Your task to perform on an android device: turn on priority inbox in the gmail app Image 0: 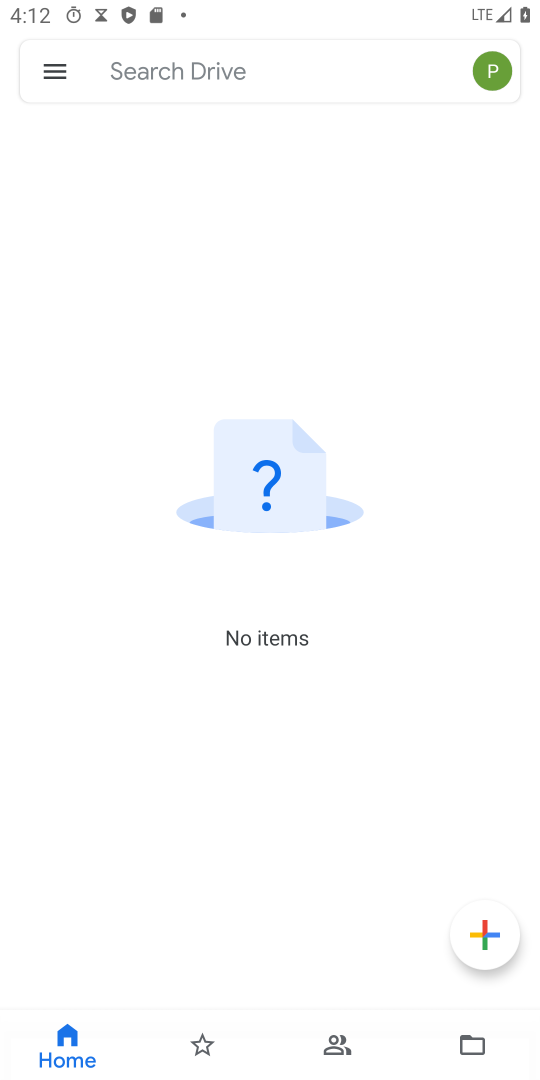
Step 0: press home button
Your task to perform on an android device: turn on priority inbox in the gmail app Image 1: 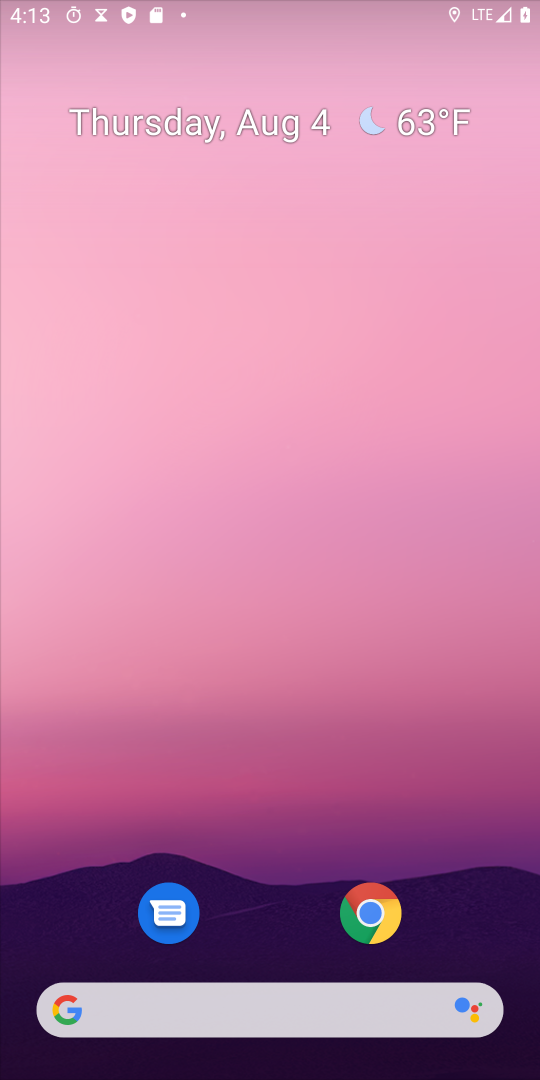
Step 1: drag from (325, 839) to (435, 45)
Your task to perform on an android device: turn on priority inbox in the gmail app Image 2: 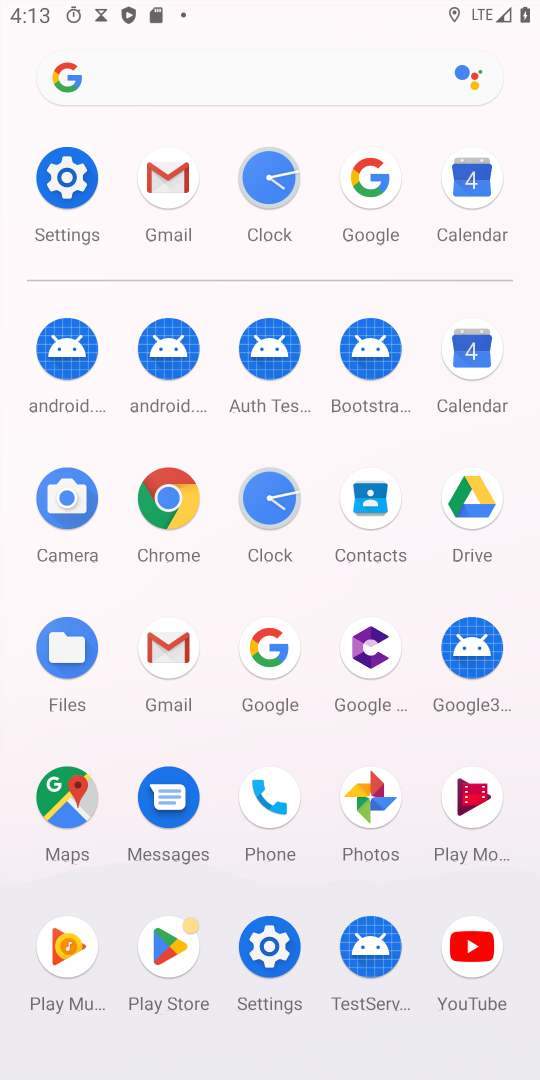
Step 2: click (163, 630)
Your task to perform on an android device: turn on priority inbox in the gmail app Image 3: 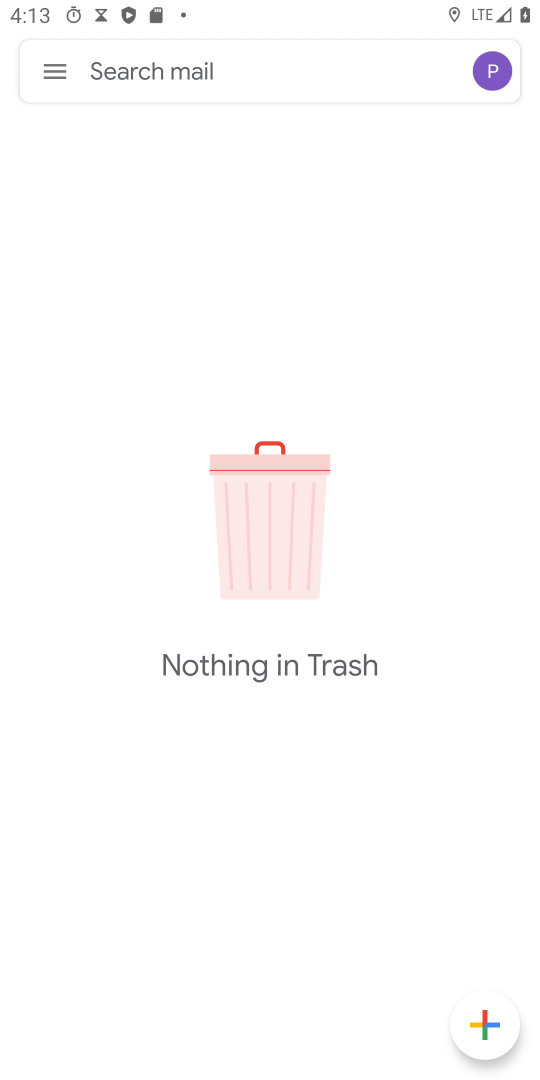
Step 3: click (49, 57)
Your task to perform on an android device: turn on priority inbox in the gmail app Image 4: 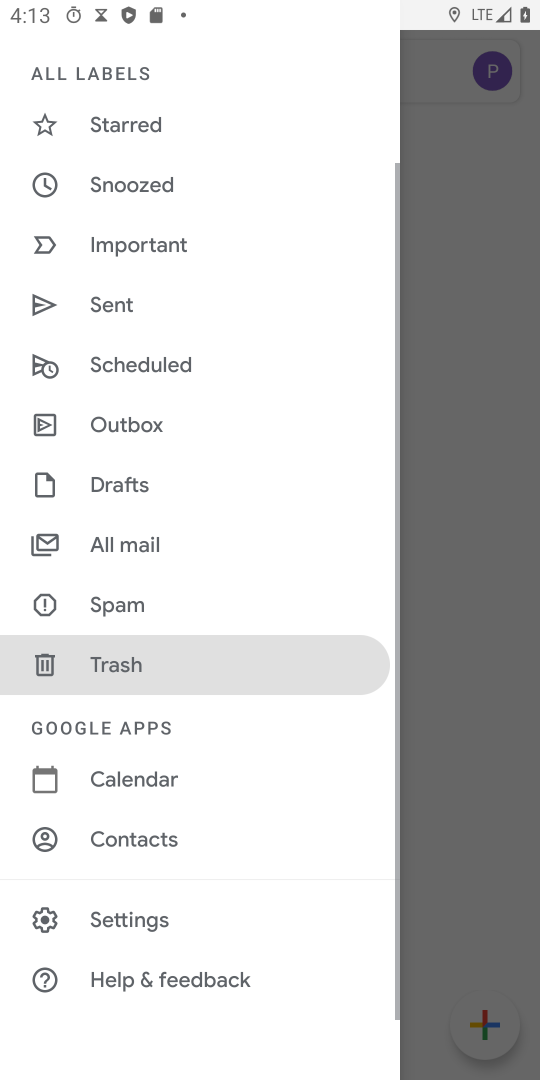
Step 4: click (150, 919)
Your task to perform on an android device: turn on priority inbox in the gmail app Image 5: 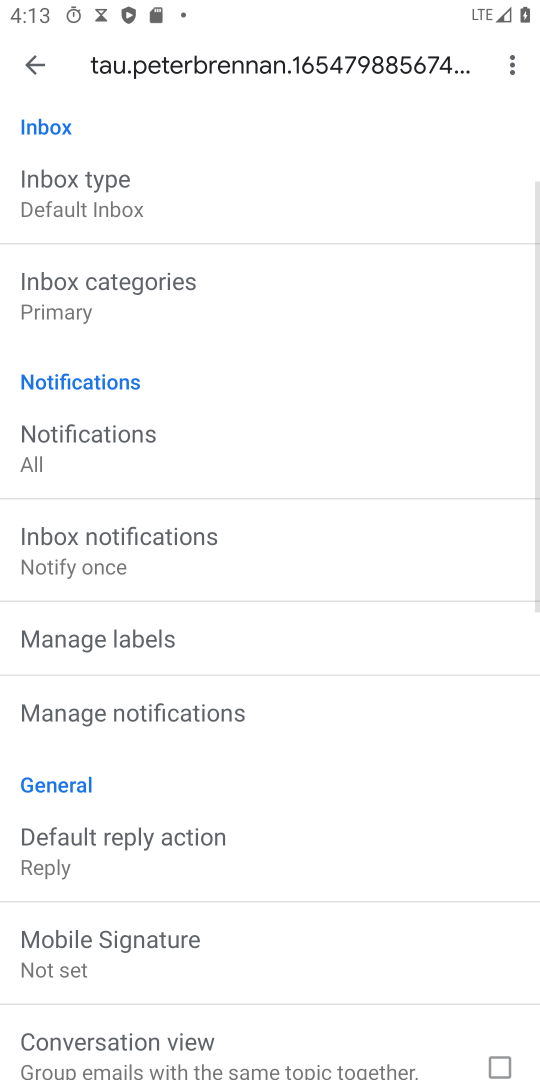
Step 5: click (118, 193)
Your task to perform on an android device: turn on priority inbox in the gmail app Image 6: 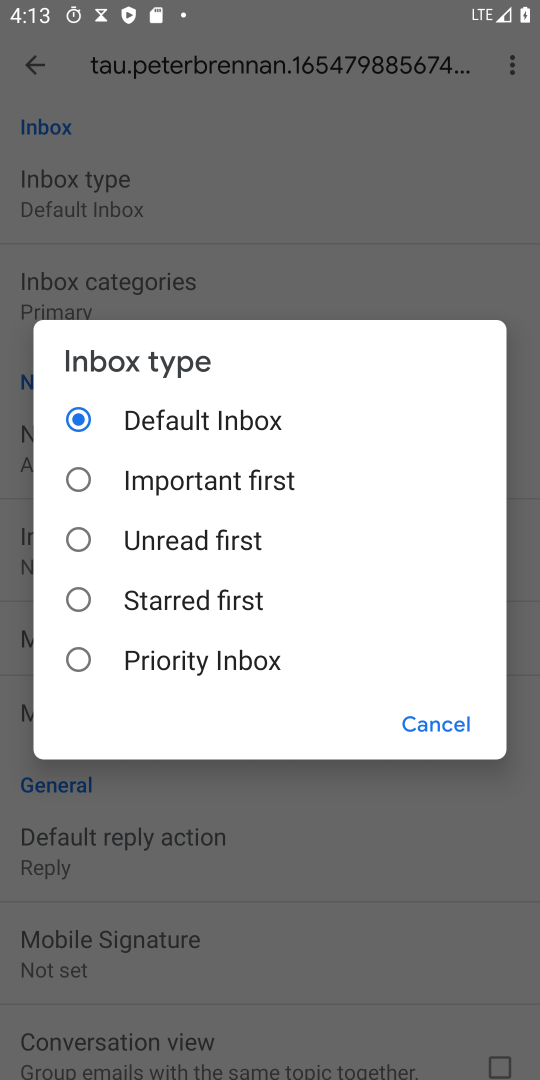
Step 6: click (70, 662)
Your task to perform on an android device: turn on priority inbox in the gmail app Image 7: 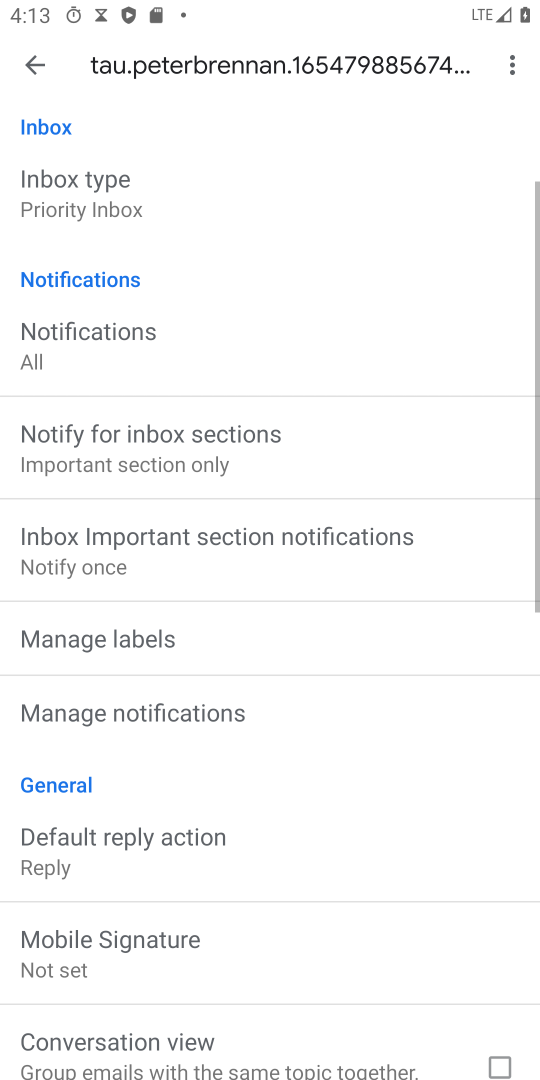
Step 7: task complete